Your task to perform on an android device: delete location history Image 0: 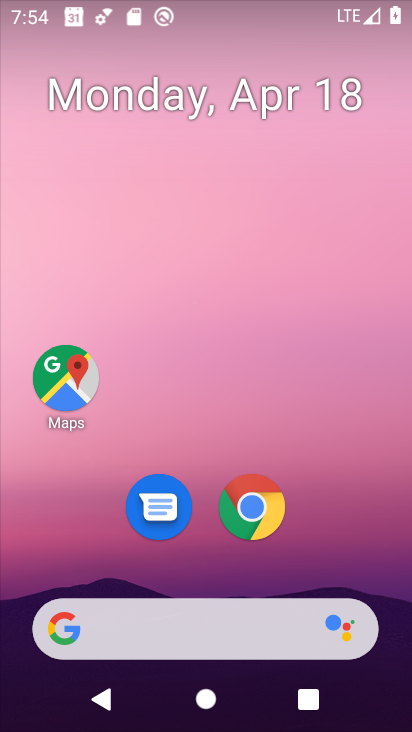
Step 0: drag from (178, 200) to (184, 104)
Your task to perform on an android device: delete location history Image 1: 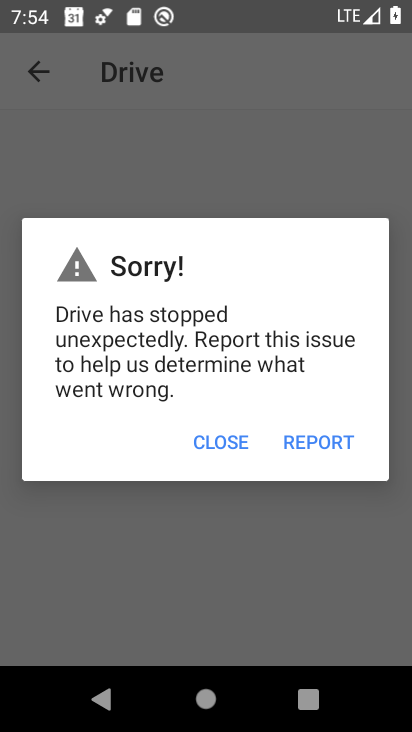
Step 1: press home button
Your task to perform on an android device: delete location history Image 2: 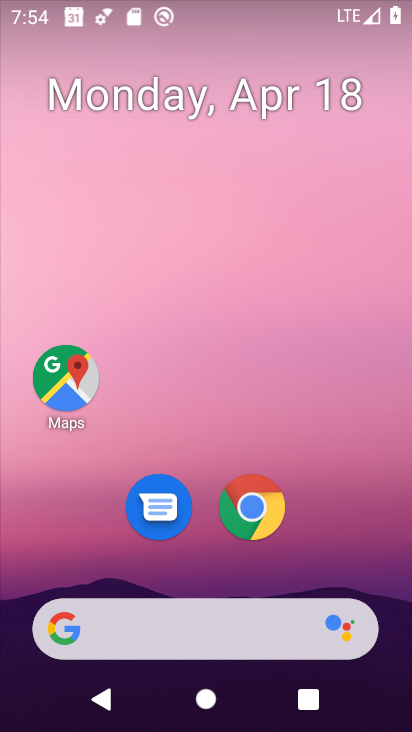
Step 2: drag from (34, 522) to (184, 40)
Your task to perform on an android device: delete location history Image 3: 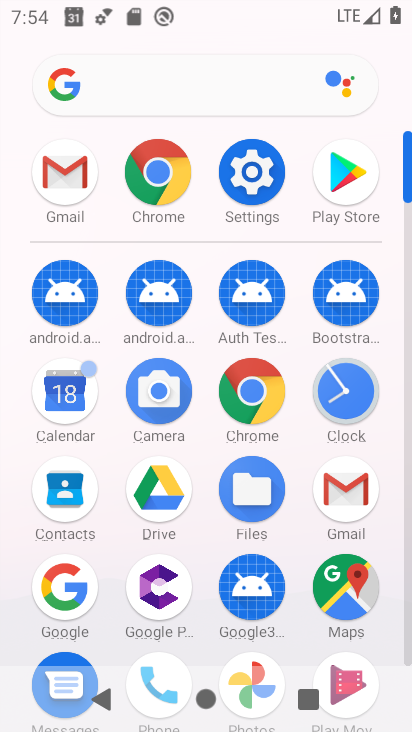
Step 3: click (237, 168)
Your task to perform on an android device: delete location history Image 4: 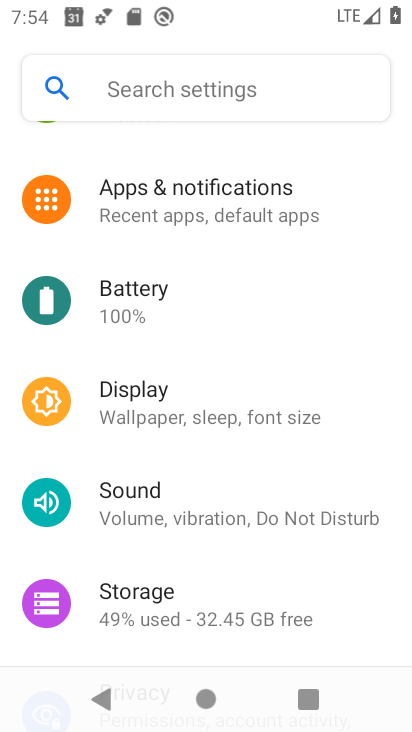
Step 4: drag from (178, 541) to (287, 190)
Your task to perform on an android device: delete location history Image 5: 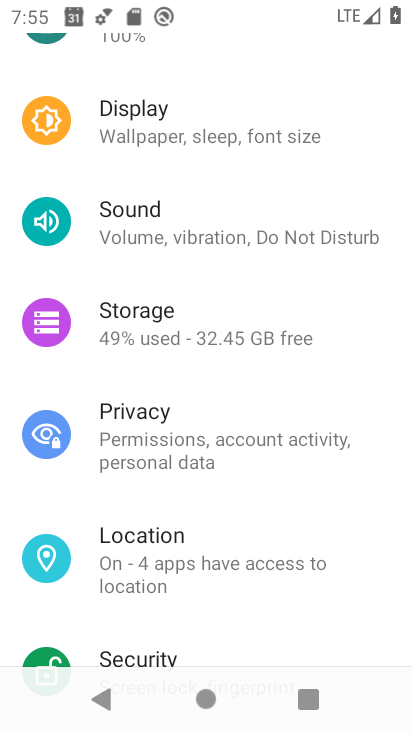
Step 5: click (248, 580)
Your task to perform on an android device: delete location history Image 6: 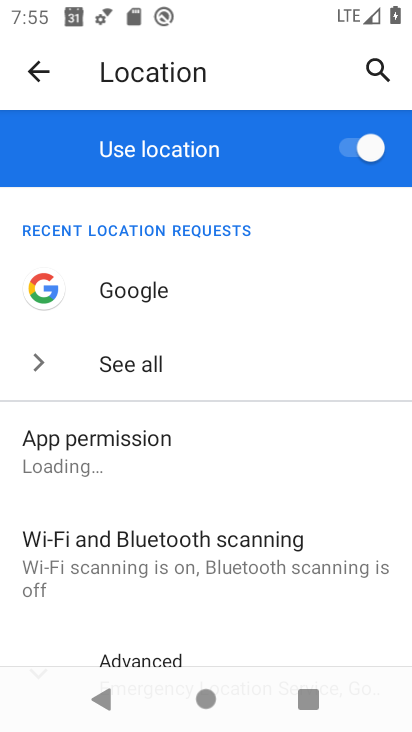
Step 6: drag from (246, 573) to (294, 175)
Your task to perform on an android device: delete location history Image 7: 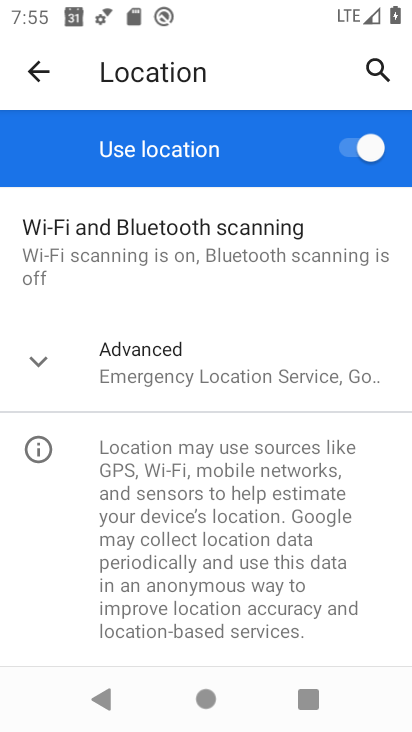
Step 7: click (114, 371)
Your task to perform on an android device: delete location history Image 8: 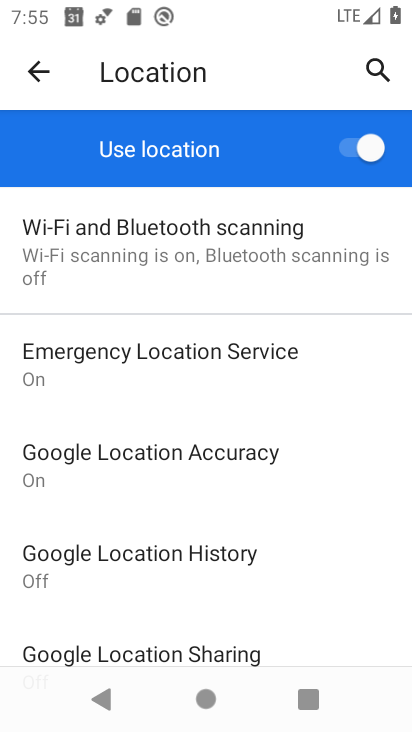
Step 8: click (219, 575)
Your task to perform on an android device: delete location history Image 9: 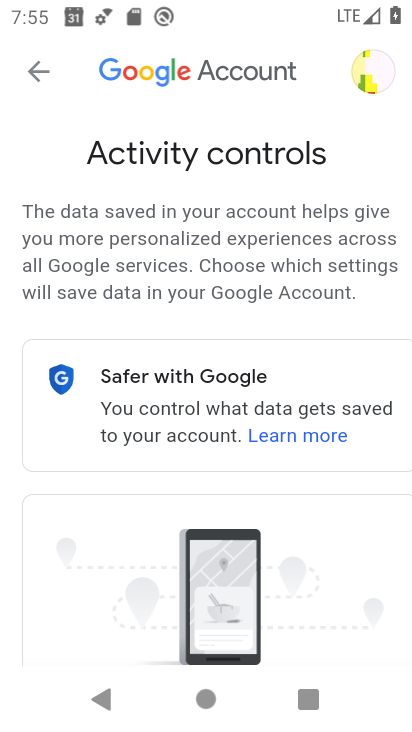
Step 9: drag from (351, 625) to (248, 88)
Your task to perform on an android device: delete location history Image 10: 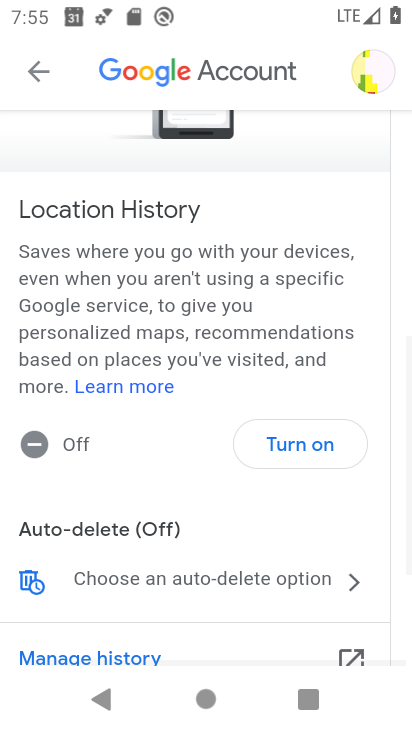
Step 10: drag from (220, 568) to (251, 384)
Your task to perform on an android device: delete location history Image 11: 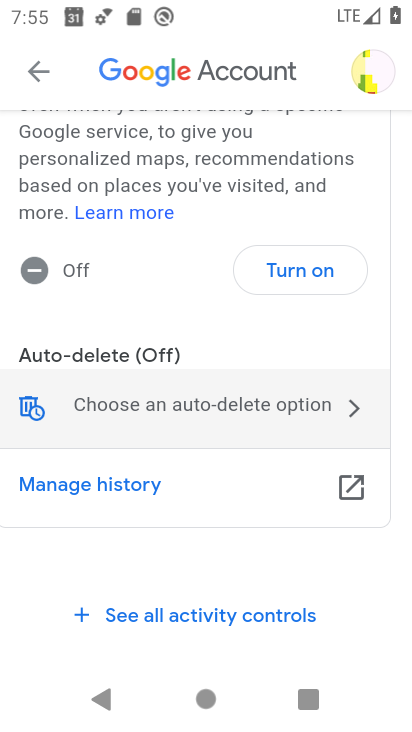
Step 11: click (303, 423)
Your task to perform on an android device: delete location history Image 12: 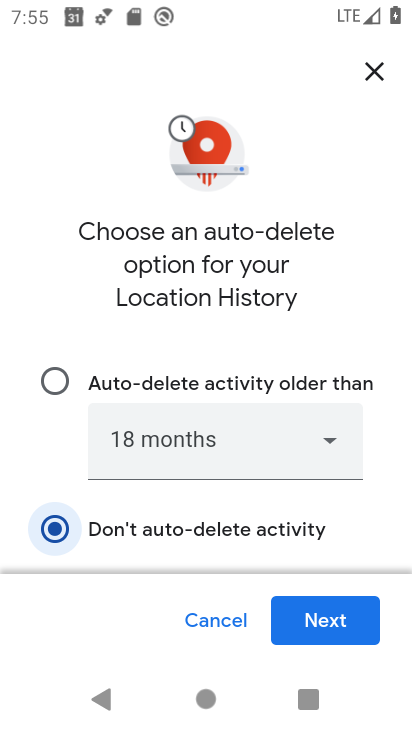
Step 12: click (330, 620)
Your task to perform on an android device: delete location history Image 13: 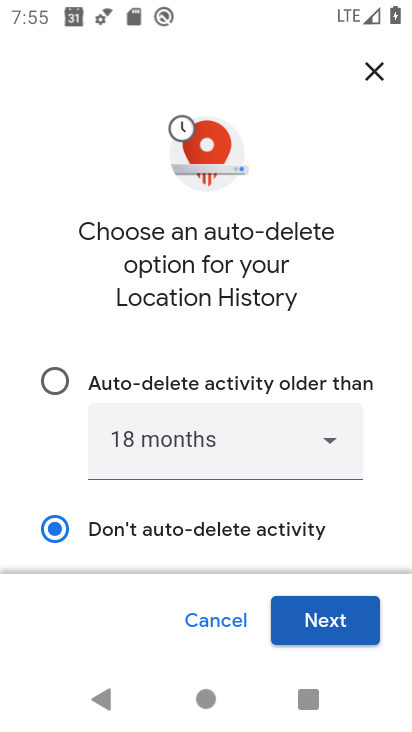
Step 13: click (324, 620)
Your task to perform on an android device: delete location history Image 14: 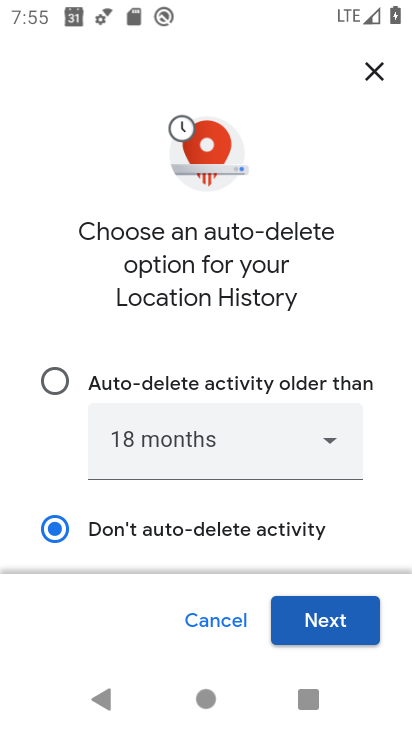
Step 14: click (331, 621)
Your task to perform on an android device: delete location history Image 15: 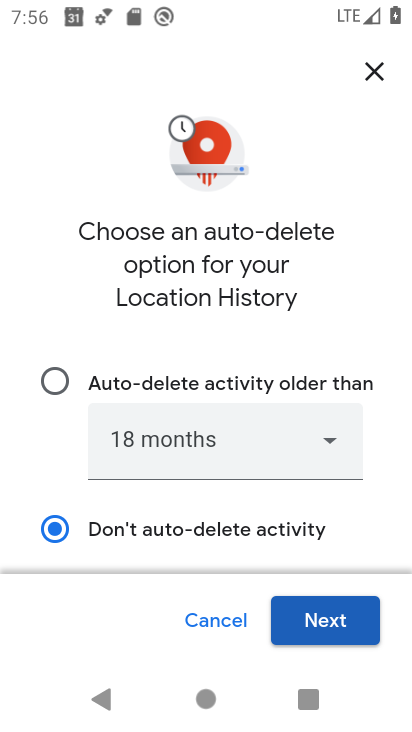
Step 15: task complete